Your task to perform on an android device: What's the weather going to be this weekend? Image 0: 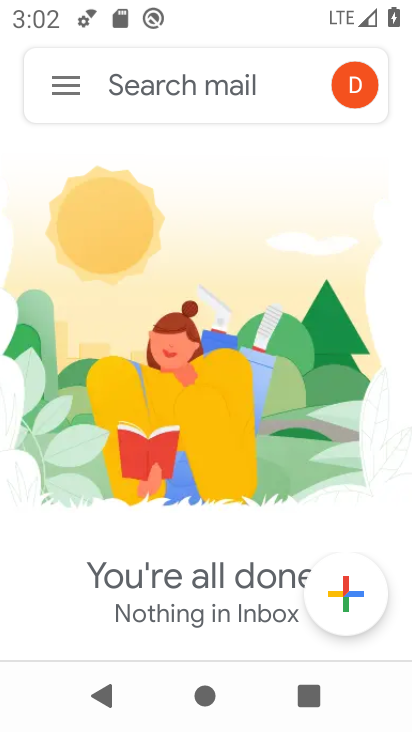
Step 0: press home button
Your task to perform on an android device: What's the weather going to be this weekend? Image 1: 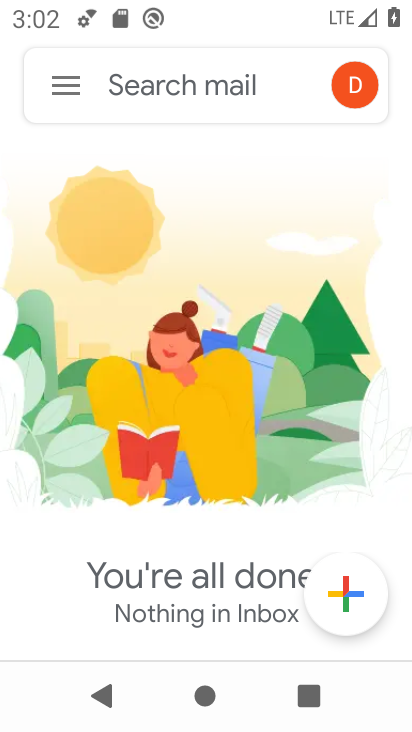
Step 1: press home button
Your task to perform on an android device: What's the weather going to be this weekend? Image 2: 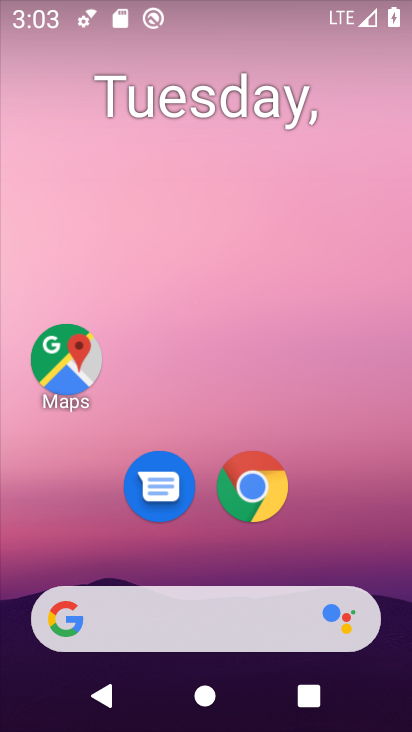
Step 2: press home button
Your task to perform on an android device: What's the weather going to be this weekend? Image 3: 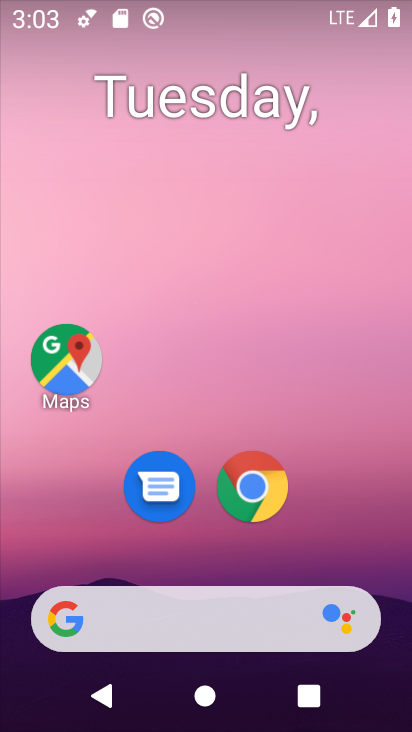
Step 3: drag from (16, 273) to (411, 306)
Your task to perform on an android device: What's the weather going to be this weekend? Image 4: 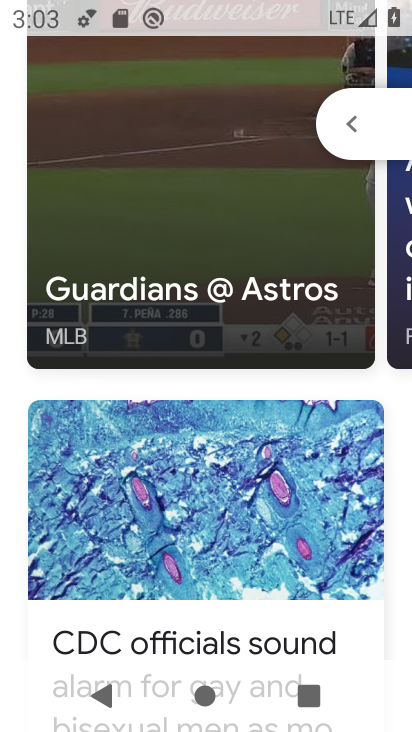
Step 4: drag from (246, 142) to (243, 606)
Your task to perform on an android device: What's the weather going to be this weekend? Image 5: 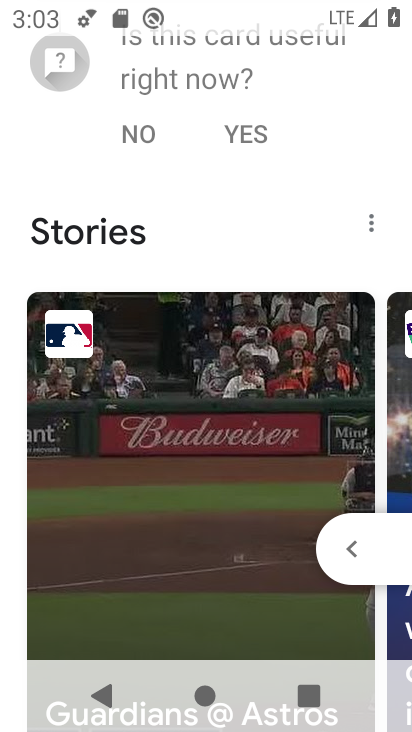
Step 5: drag from (224, 155) to (233, 663)
Your task to perform on an android device: What's the weather going to be this weekend? Image 6: 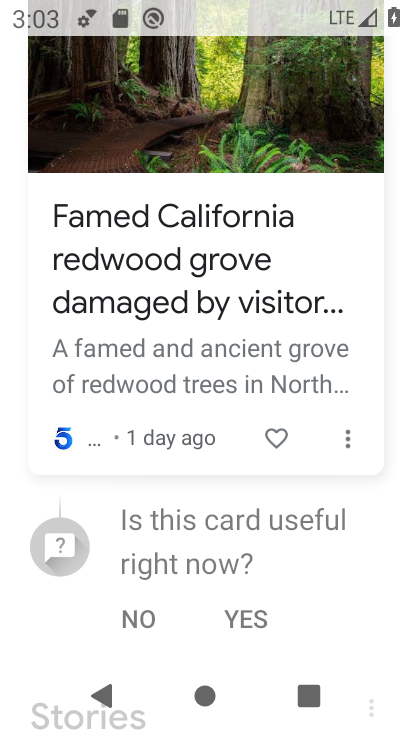
Step 6: drag from (233, 152) to (236, 689)
Your task to perform on an android device: What's the weather going to be this weekend? Image 7: 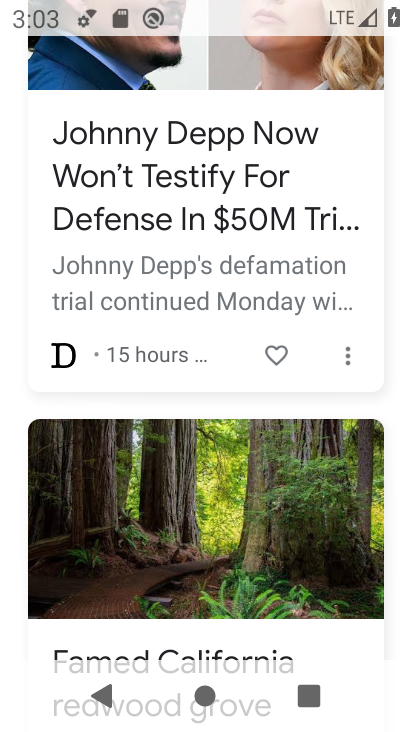
Step 7: drag from (225, 128) to (202, 616)
Your task to perform on an android device: What's the weather going to be this weekend? Image 8: 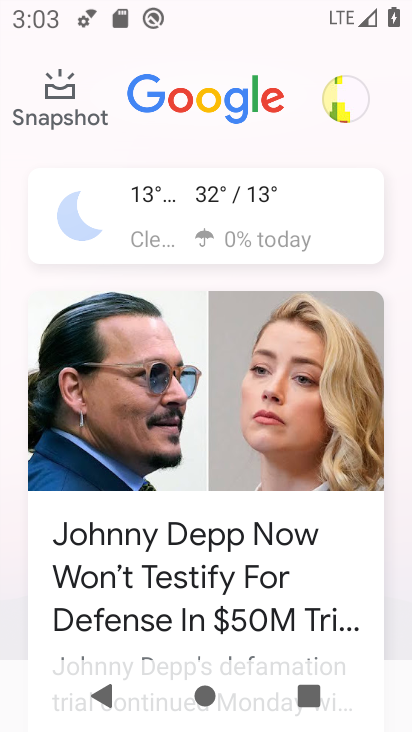
Step 8: click (235, 199)
Your task to perform on an android device: What's the weather going to be this weekend? Image 9: 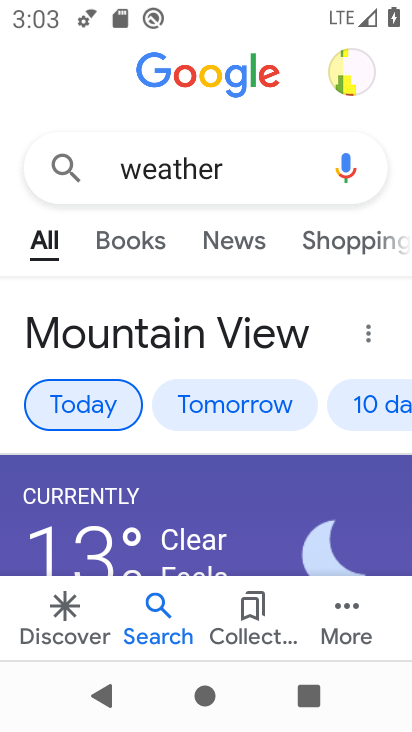
Step 9: drag from (366, 252) to (197, 268)
Your task to perform on an android device: What's the weather going to be this weekend? Image 10: 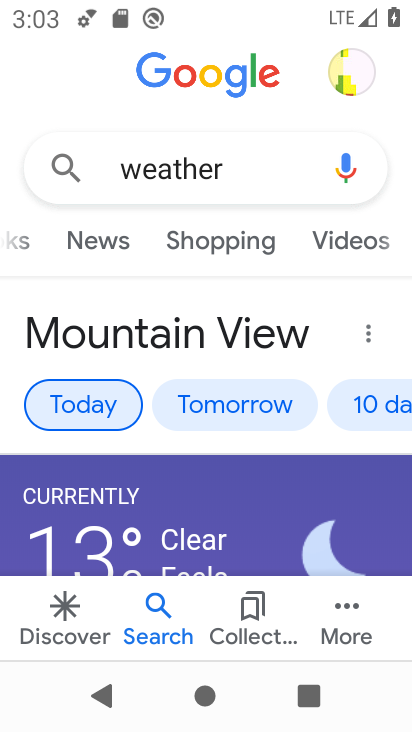
Step 10: click (366, 405)
Your task to perform on an android device: What's the weather going to be this weekend? Image 11: 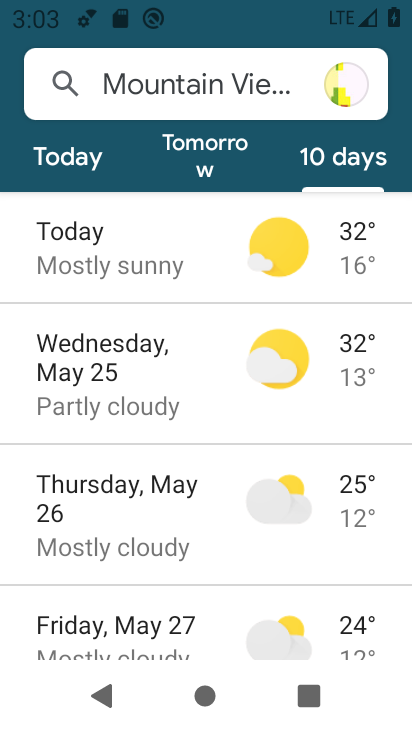
Step 11: task complete